Your task to perform on an android device: Go to privacy settings Image 0: 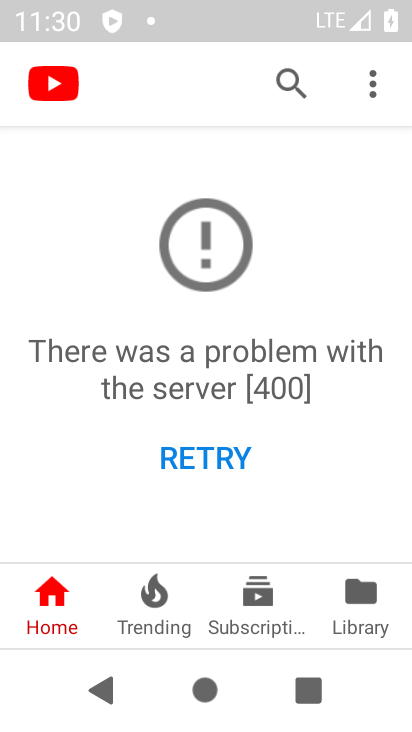
Step 0: press home button
Your task to perform on an android device: Go to privacy settings Image 1: 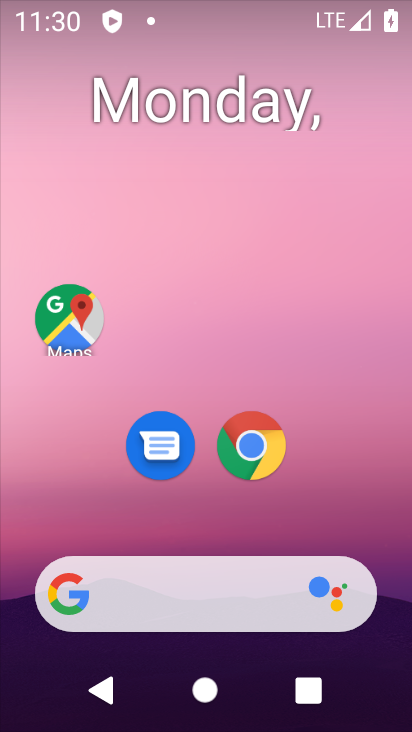
Step 1: click (271, 450)
Your task to perform on an android device: Go to privacy settings Image 2: 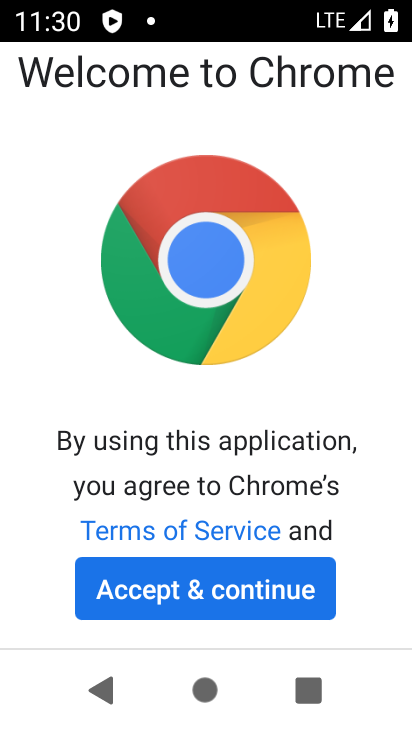
Step 2: click (234, 592)
Your task to perform on an android device: Go to privacy settings Image 3: 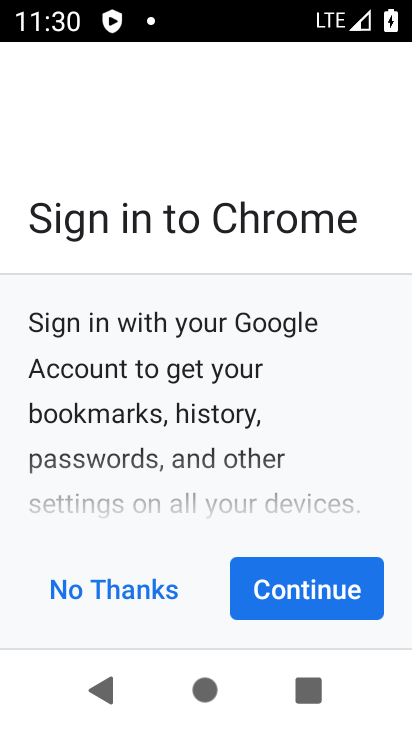
Step 3: click (318, 607)
Your task to perform on an android device: Go to privacy settings Image 4: 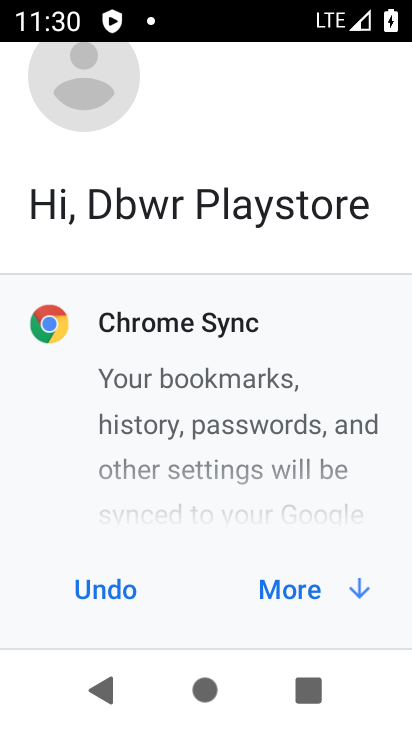
Step 4: click (299, 577)
Your task to perform on an android device: Go to privacy settings Image 5: 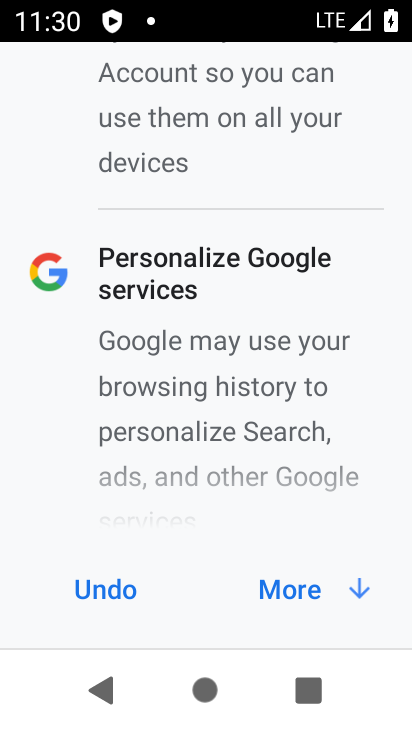
Step 5: click (316, 594)
Your task to perform on an android device: Go to privacy settings Image 6: 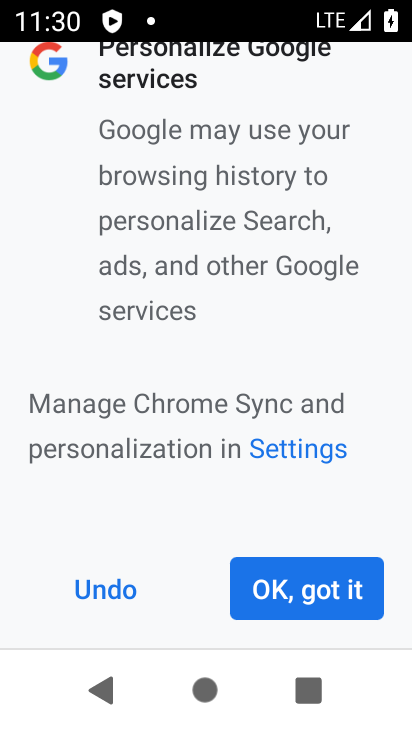
Step 6: click (316, 594)
Your task to perform on an android device: Go to privacy settings Image 7: 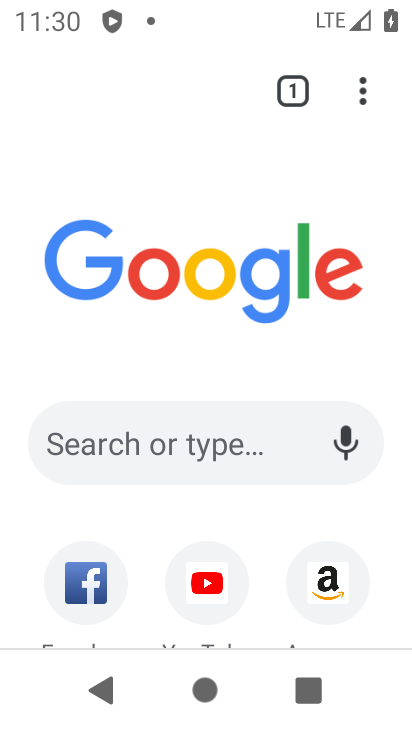
Step 7: drag from (376, 117) to (327, 499)
Your task to perform on an android device: Go to privacy settings Image 8: 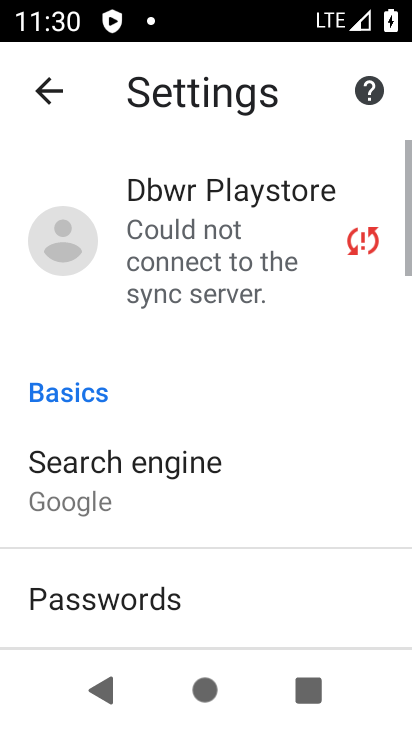
Step 8: drag from (247, 620) to (376, 253)
Your task to perform on an android device: Go to privacy settings Image 9: 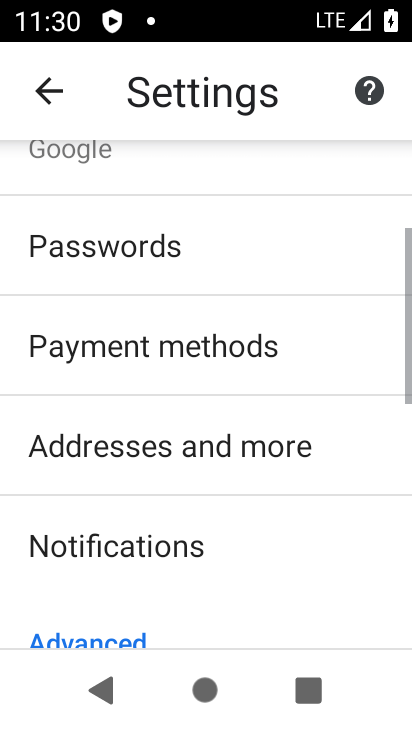
Step 9: drag from (259, 572) to (332, 232)
Your task to perform on an android device: Go to privacy settings Image 10: 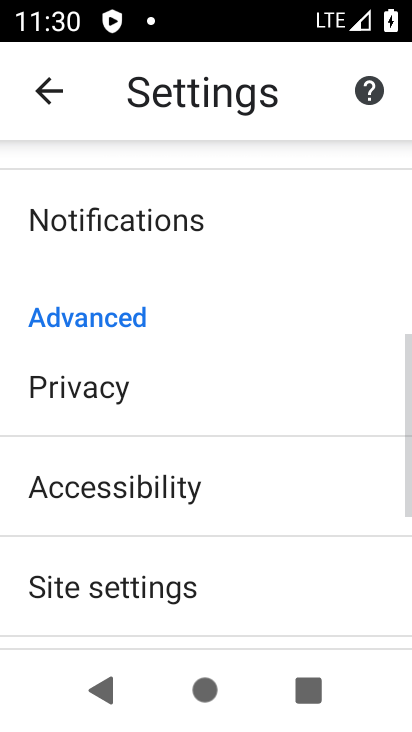
Step 10: click (159, 384)
Your task to perform on an android device: Go to privacy settings Image 11: 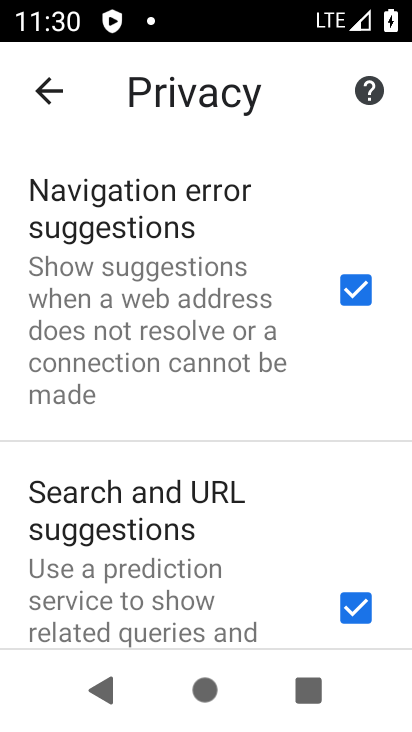
Step 11: task complete